Your task to perform on an android device: open app "VLC for Android" Image 0: 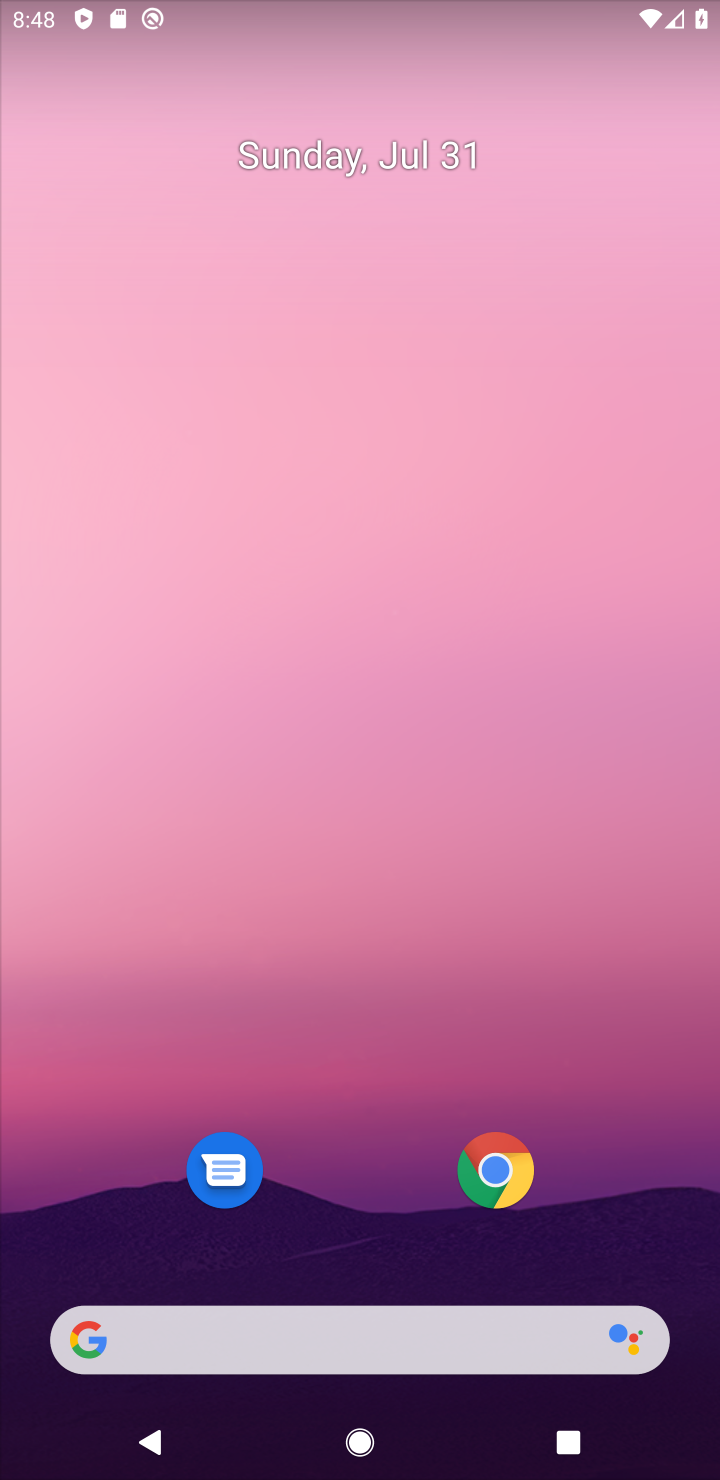
Step 0: drag from (623, 1167) to (175, 67)
Your task to perform on an android device: open app "VLC for Android" Image 1: 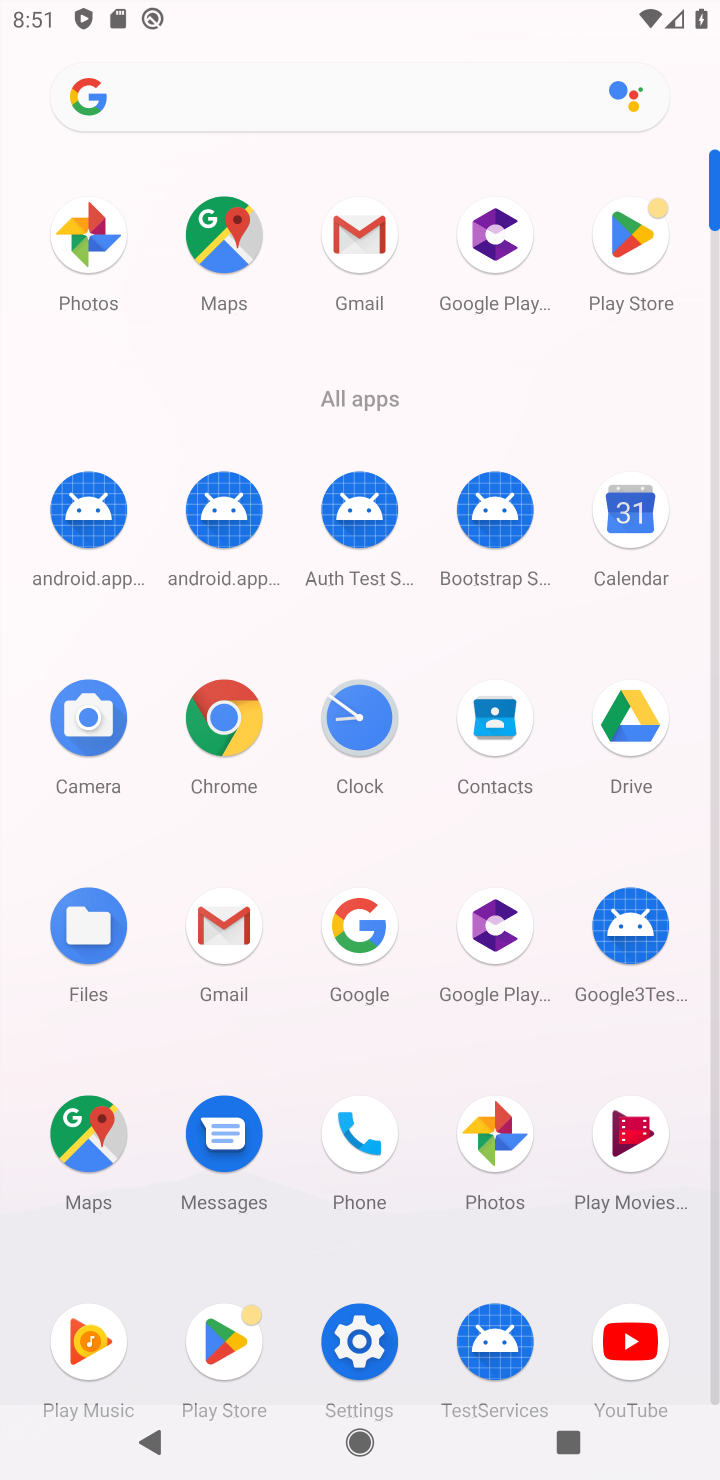
Step 1: click (600, 221)
Your task to perform on an android device: open app "VLC for Android" Image 2: 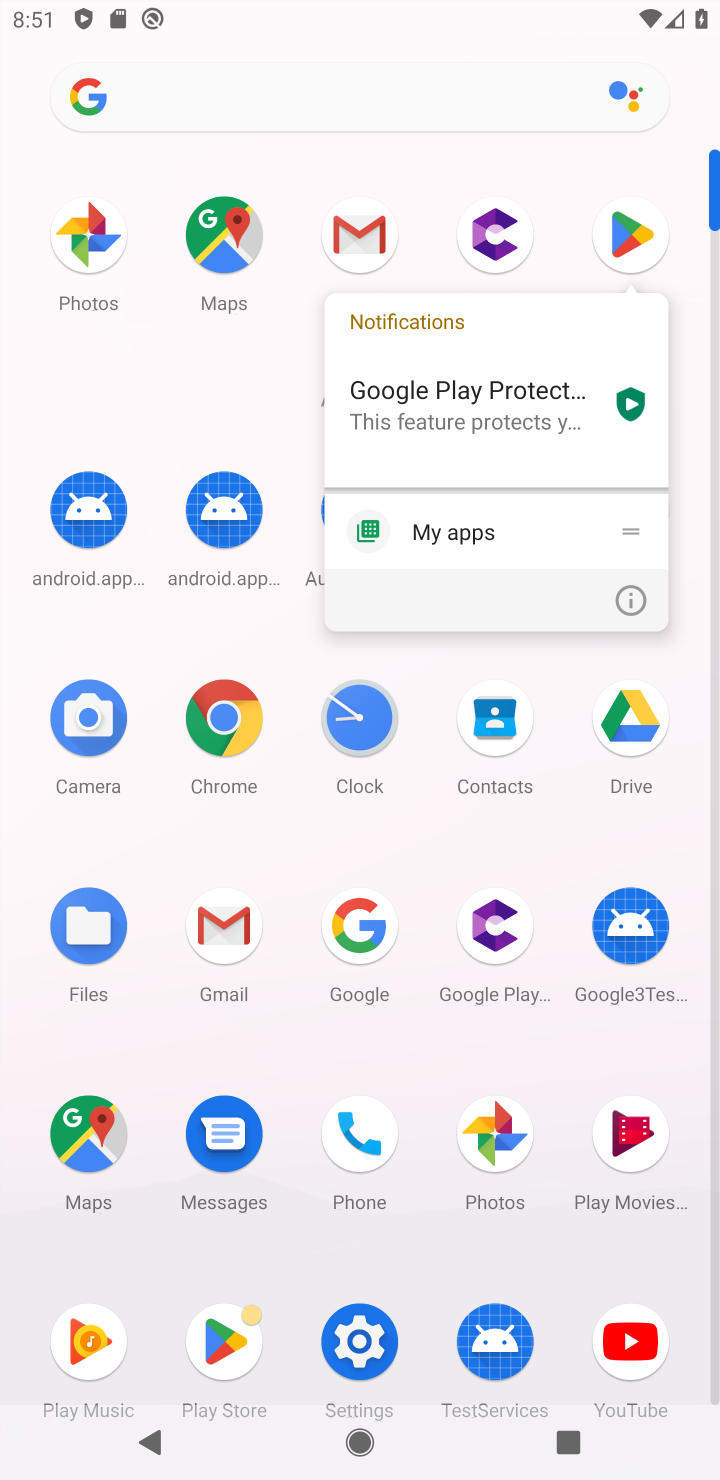
Step 2: click (616, 239)
Your task to perform on an android device: open app "VLC for Android" Image 3: 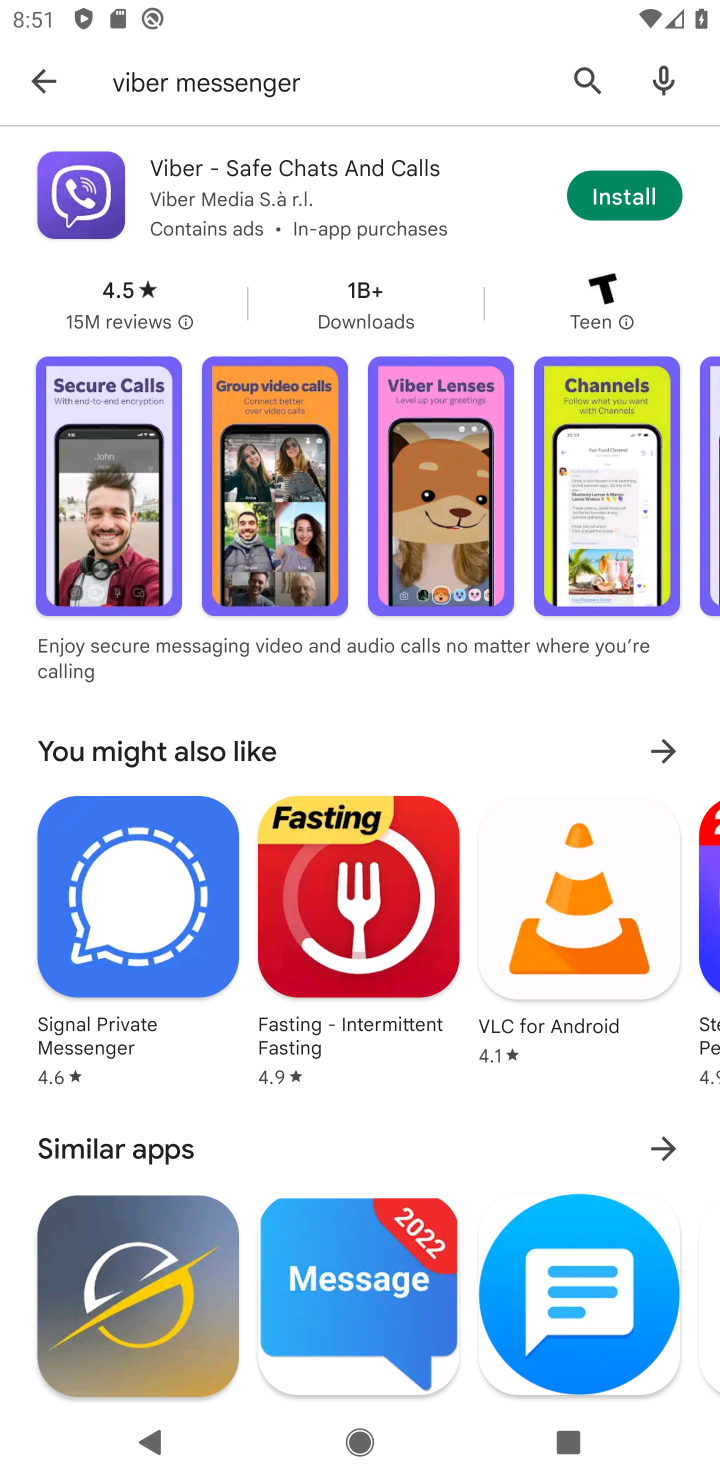
Step 3: press back button
Your task to perform on an android device: open app "VLC for Android" Image 4: 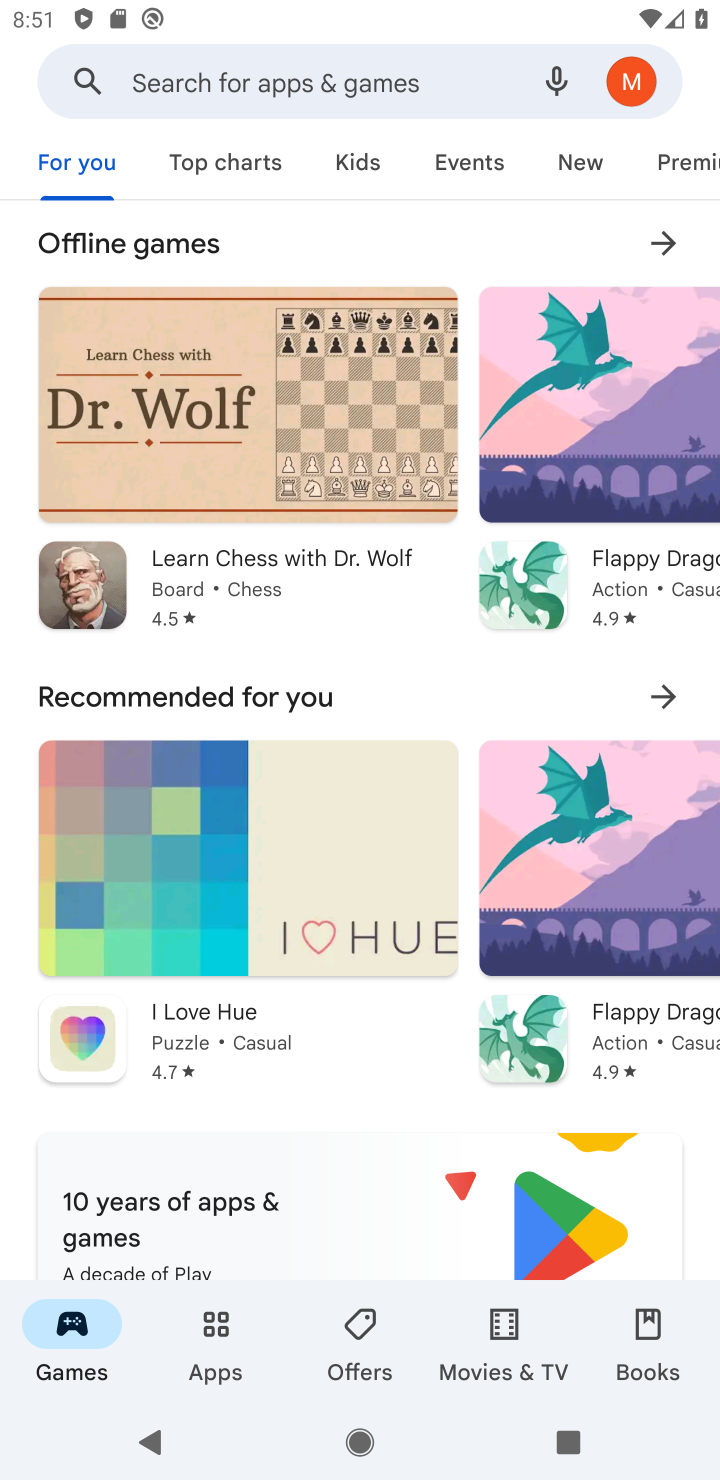
Step 4: click (195, 87)
Your task to perform on an android device: open app "VLC for Android" Image 5: 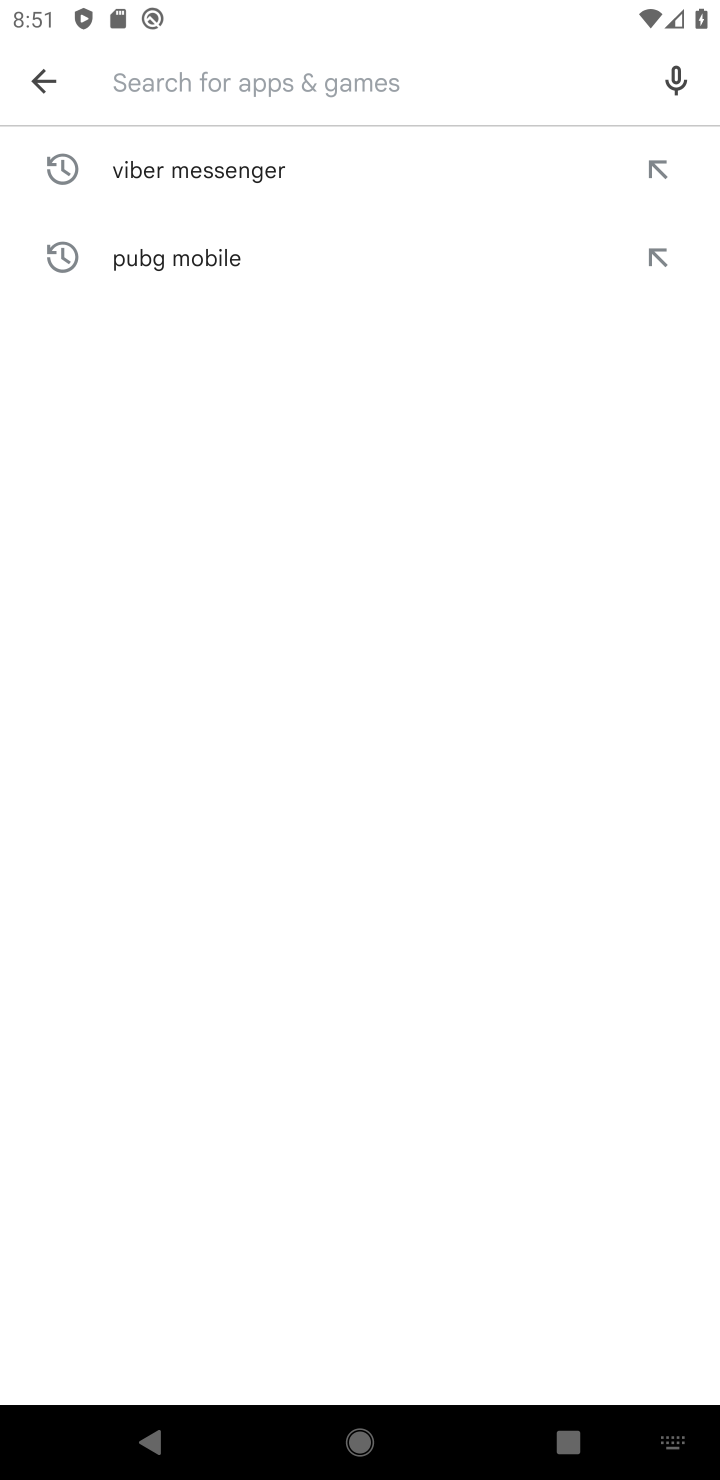
Step 5: type "VLC for Android"
Your task to perform on an android device: open app "VLC for Android" Image 6: 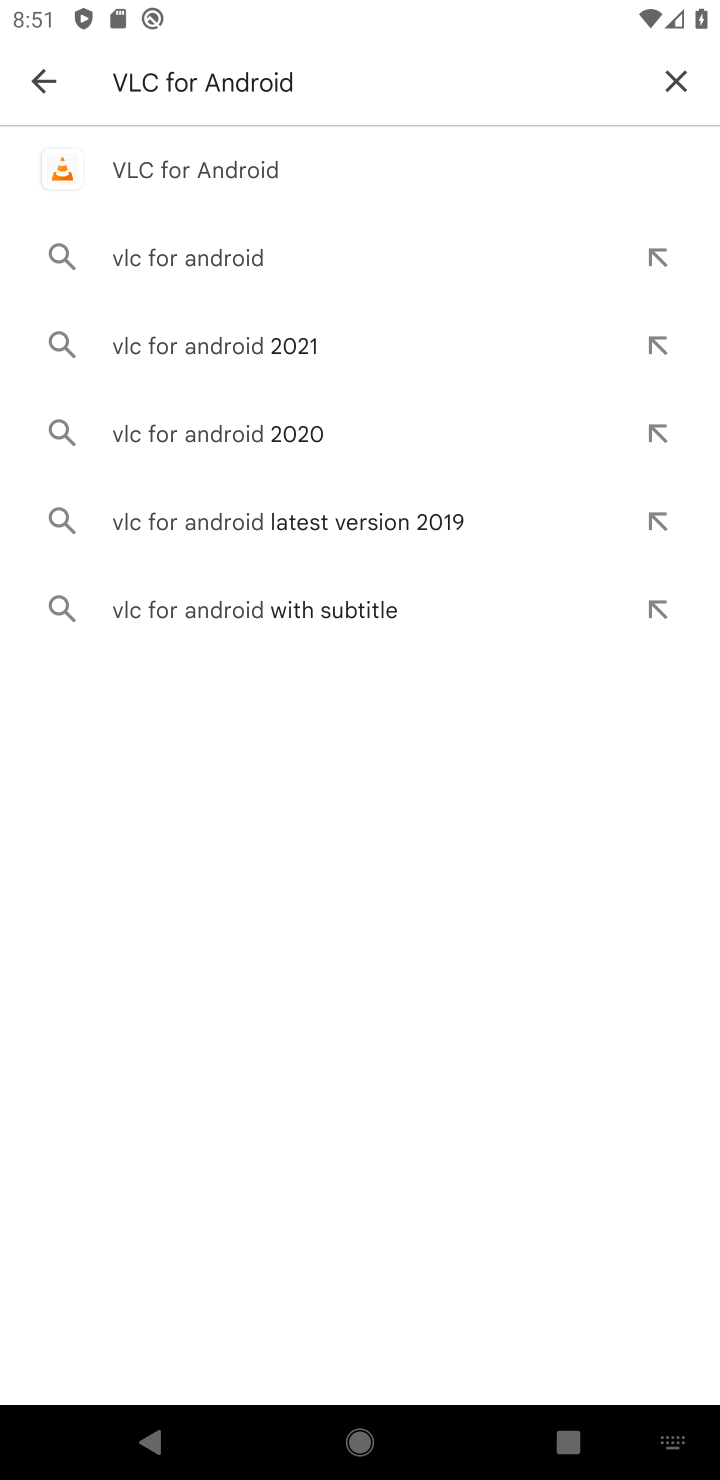
Step 6: click (282, 188)
Your task to perform on an android device: open app "VLC for Android" Image 7: 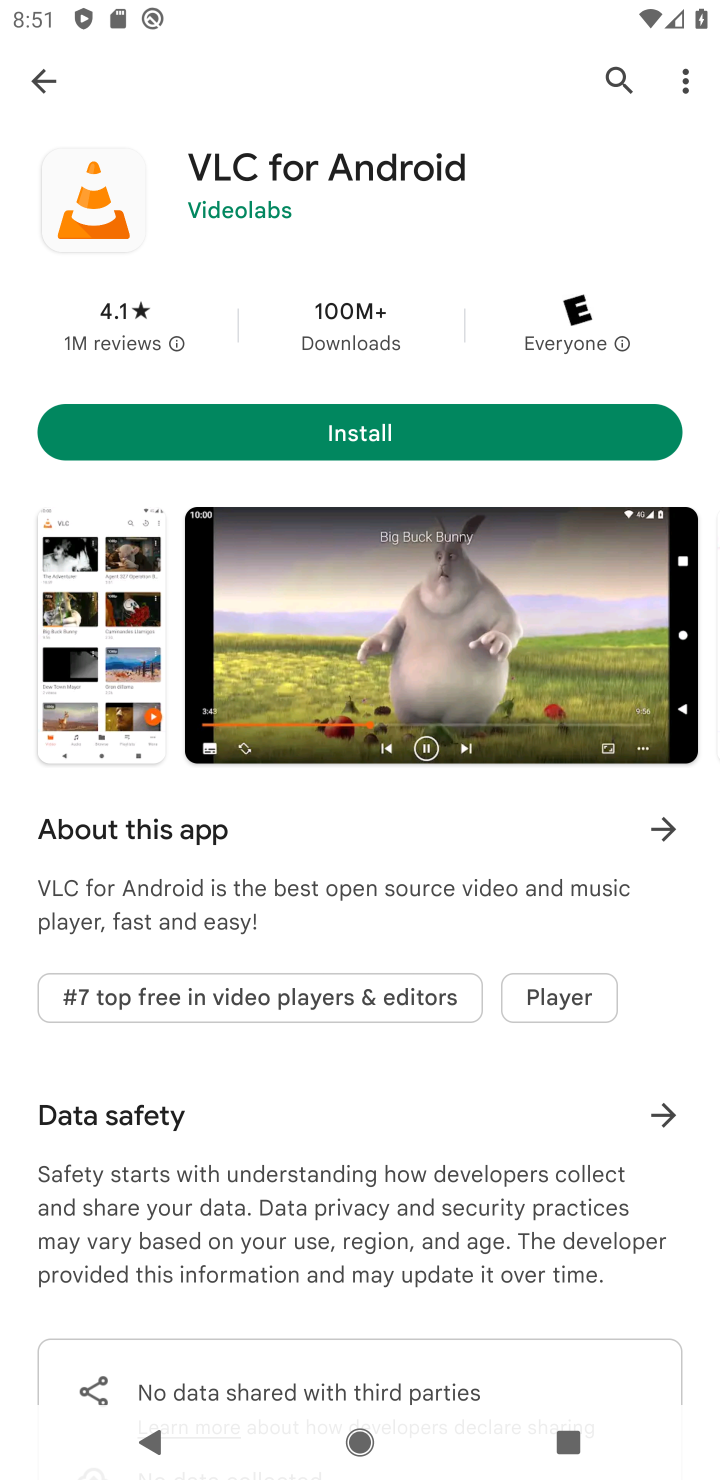
Step 7: task complete